Your task to perform on an android device: change text size in settings app Image 0: 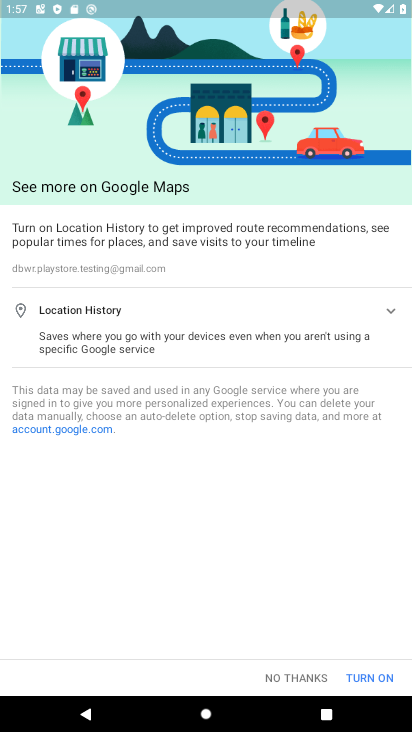
Step 0: press home button
Your task to perform on an android device: change text size in settings app Image 1: 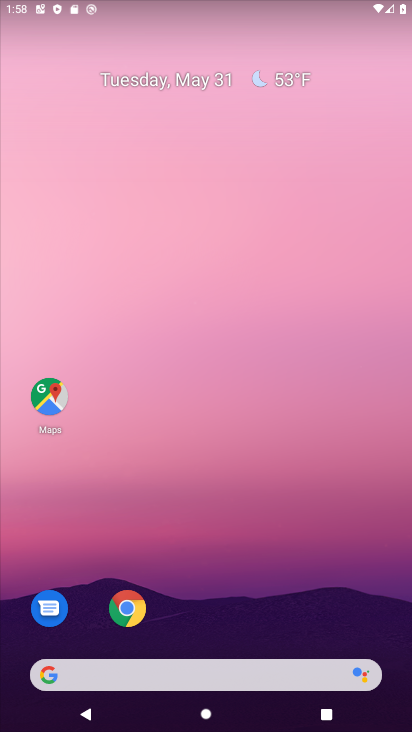
Step 1: drag from (263, 591) to (326, 80)
Your task to perform on an android device: change text size in settings app Image 2: 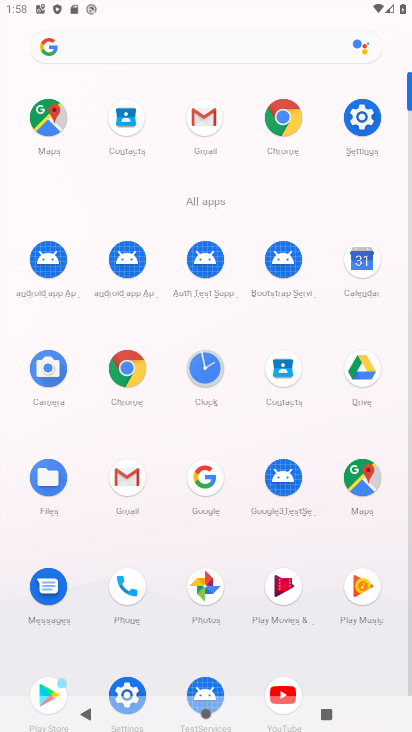
Step 2: click (349, 117)
Your task to perform on an android device: change text size in settings app Image 3: 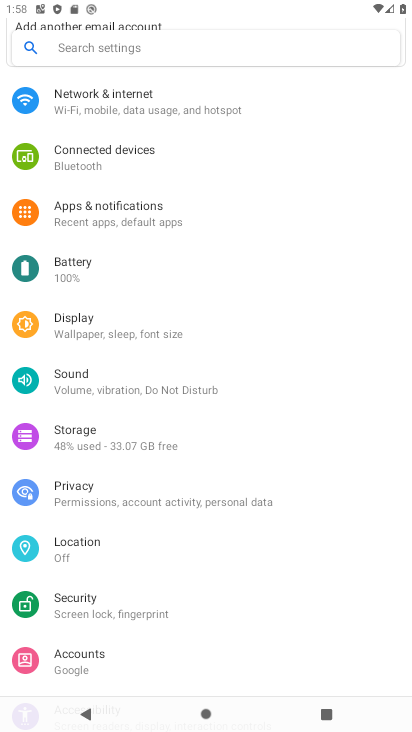
Step 3: click (199, 330)
Your task to perform on an android device: change text size in settings app Image 4: 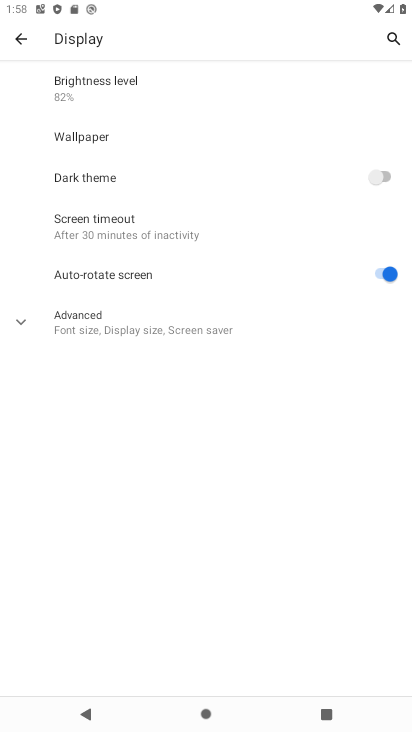
Step 4: click (194, 325)
Your task to perform on an android device: change text size in settings app Image 5: 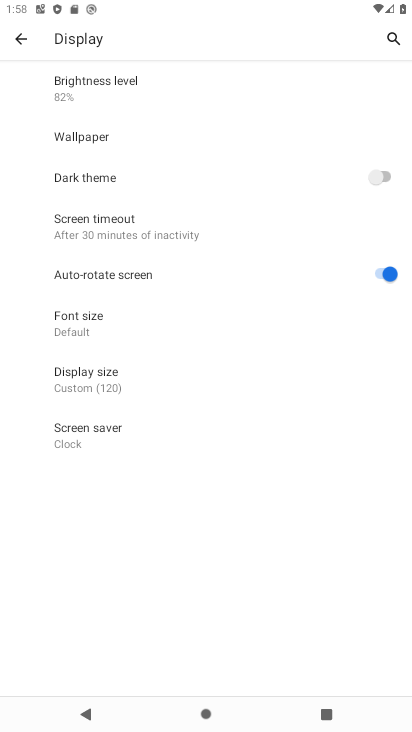
Step 5: click (142, 320)
Your task to perform on an android device: change text size in settings app Image 6: 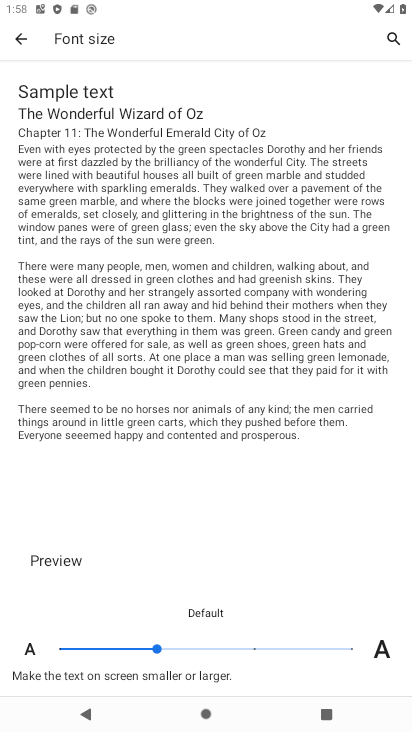
Step 6: task complete